Your task to perform on an android device: turn on translation in the chrome app Image 0: 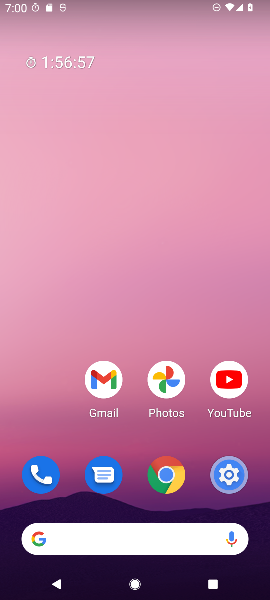
Step 0: press home button
Your task to perform on an android device: turn on translation in the chrome app Image 1: 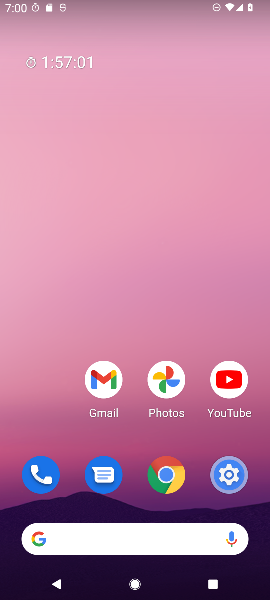
Step 1: drag from (59, 447) to (62, 190)
Your task to perform on an android device: turn on translation in the chrome app Image 2: 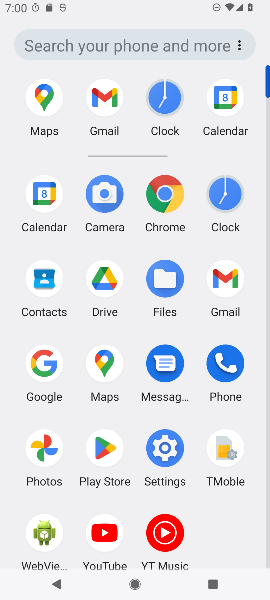
Step 2: click (165, 196)
Your task to perform on an android device: turn on translation in the chrome app Image 3: 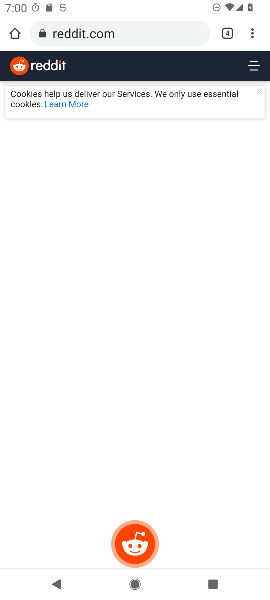
Step 3: click (252, 33)
Your task to perform on an android device: turn on translation in the chrome app Image 4: 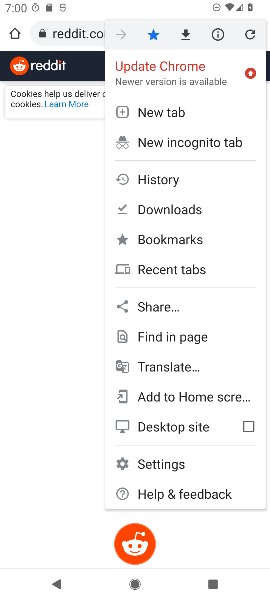
Step 4: click (183, 468)
Your task to perform on an android device: turn on translation in the chrome app Image 5: 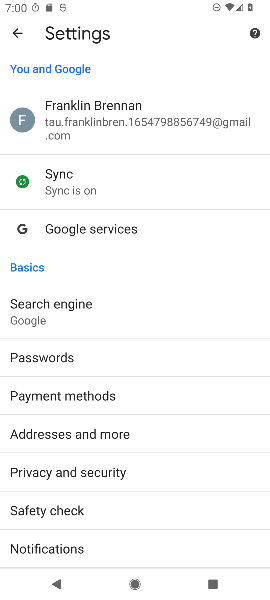
Step 5: drag from (208, 418) to (208, 276)
Your task to perform on an android device: turn on translation in the chrome app Image 6: 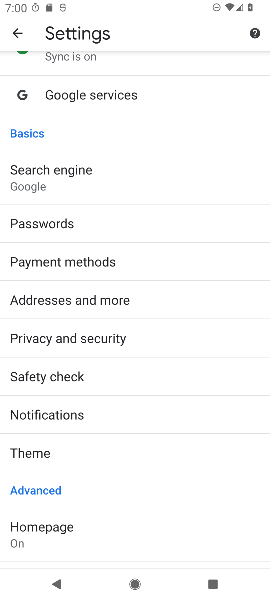
Step 6: drag from (159, 384) to (154, 250)
Your task to perform on an android device: turn on translation in the chrome app Image 7: 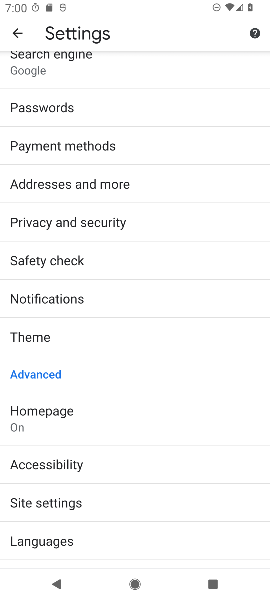
Step 7: drag from (152, 422) to (160, 268)
Your task to perform on an android device: turn on translation in the chrome app Image 8: 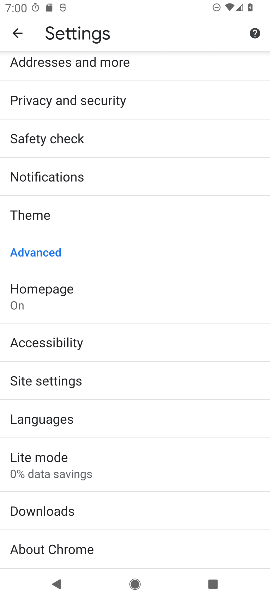
Step 8: drag from (158, 407) to (165, 295)
Your task to perform on an android device: turn on translation in the chrome app Image 9: 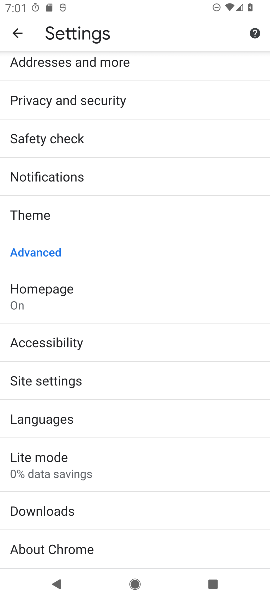
Step 9: click (84, 410)
Your task to perform on an android device: turn on translation in the chrome app Image 10: 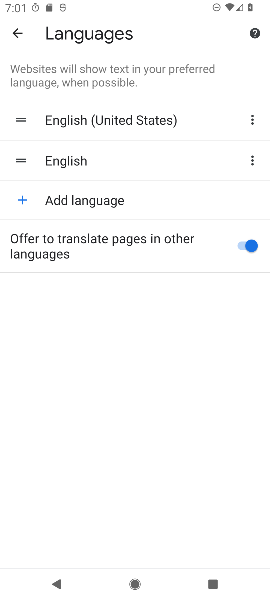
Step 10: task complete